Your task to perform on an android device: Open eBay Image 0: 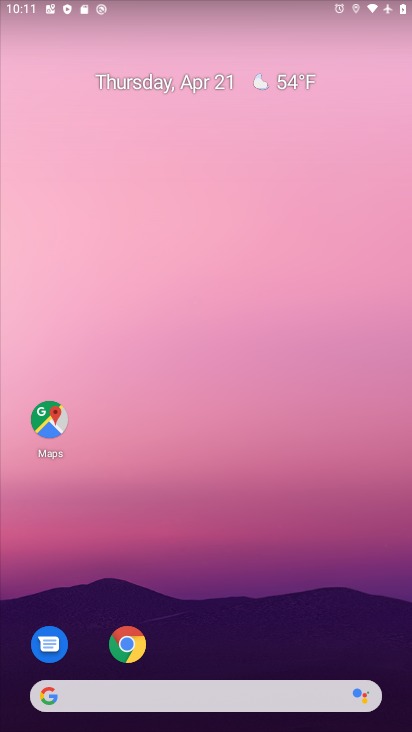
Step 0: click (132, 639)
Your task to perform on an android device: Open eBay Image 1: 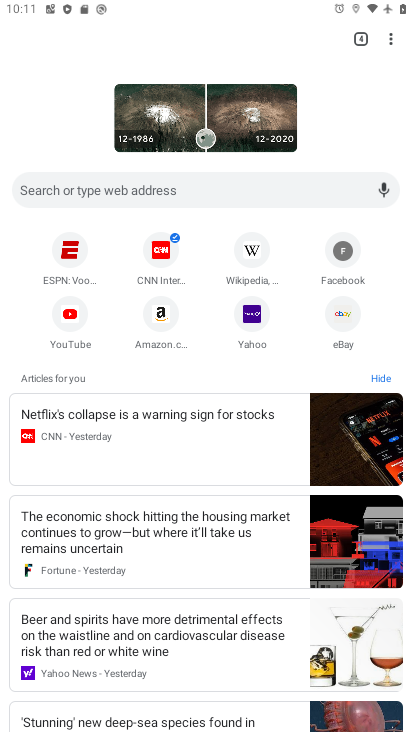
Step 1: click (168, 186)
Your task to perform on an android device: Open eBay Image 2: 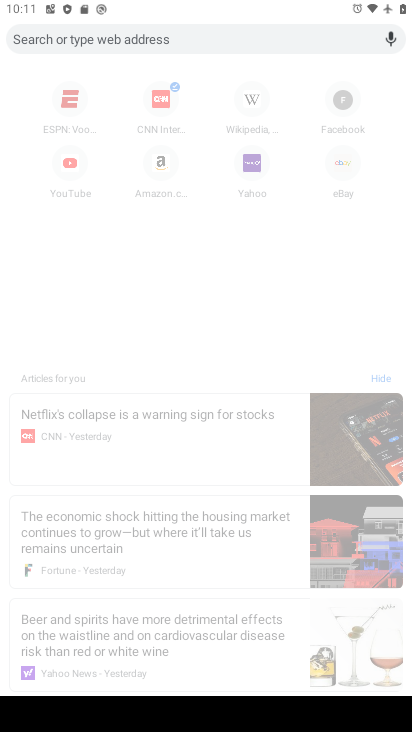
Step 2: click (331, 254)
Your task to perform on an android device: Open eBay Image 3: 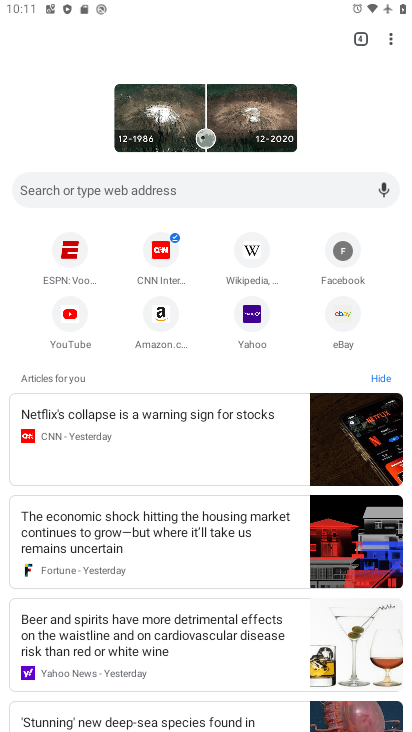
Step 3: click (333, 316)
Your task to perform on an android device: Open eBay Image 4: 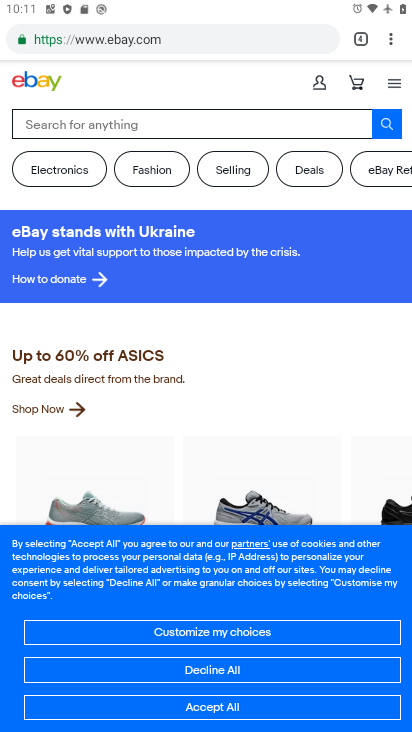
Step 4: task complete